Your task to perform on an android device: toggle sleep mode Image 0: 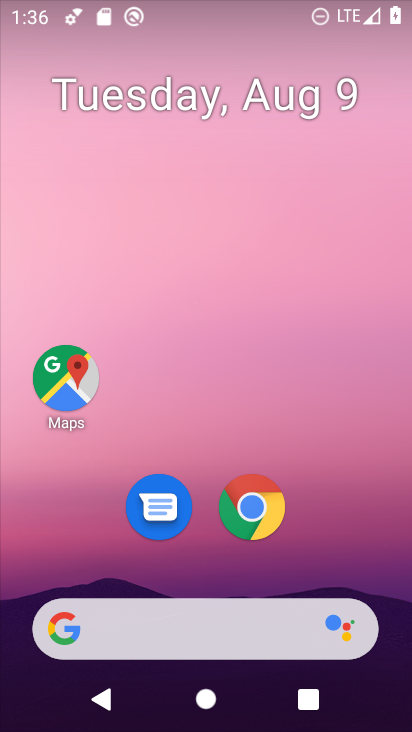
Step 0: drag from (220, 385) to (253, 134)
Your task to perform on an android device: toggle sleep mode Image 1: 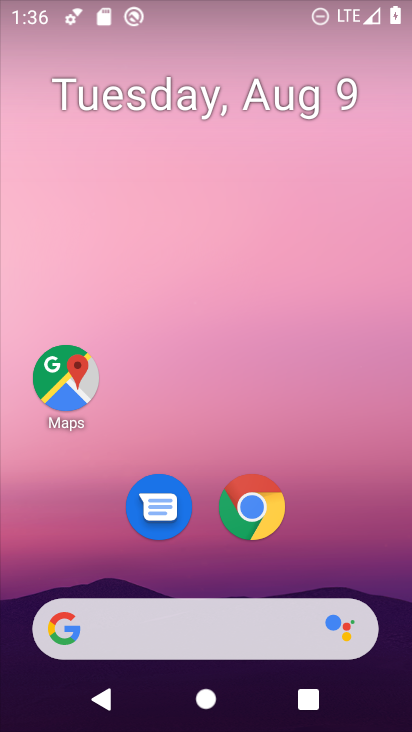
Step 1: task complete